Your task to perform on an android device: Do I have any events tomorrow? Image 0: 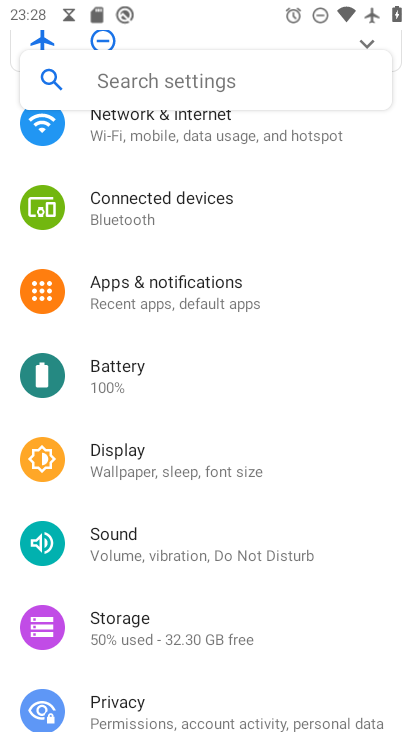
Step 0: press home button
Your task to perform on an android device: Do I have any events tomorrow? Image 1: 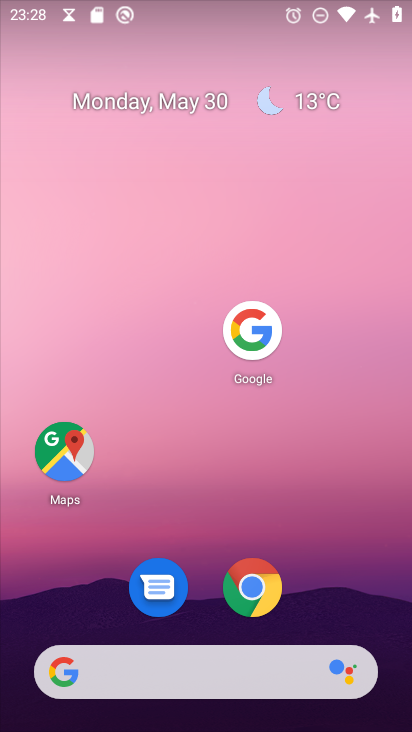
Step 1: drag from (128, 681) to (285, 244)
Your task to perform on an android device: Do I have any events tomorrow? Image 2: 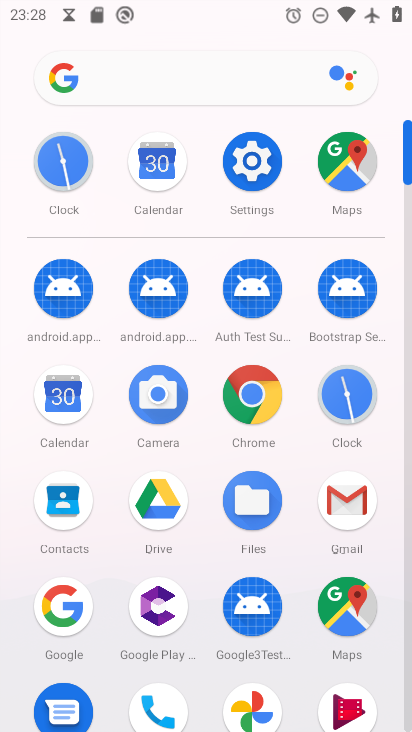
Step 2: click (162, 172)
Your task to perform on an android device: Do I have any events tomorrow? Image 3: 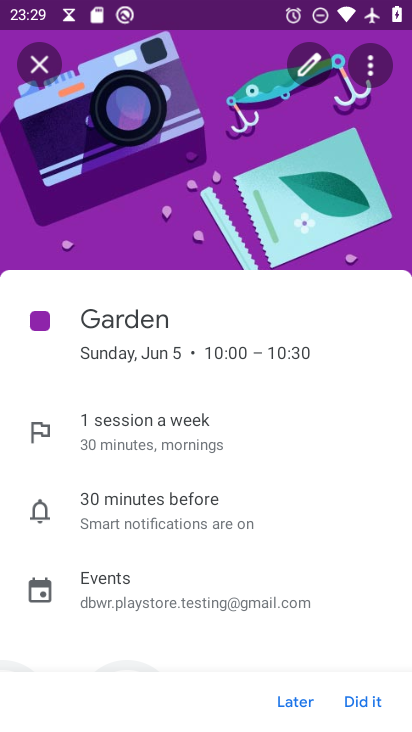
Step 3: click (40, 69)
Your task to perform on an android device: Do I have any events tomorrow? Image 4: 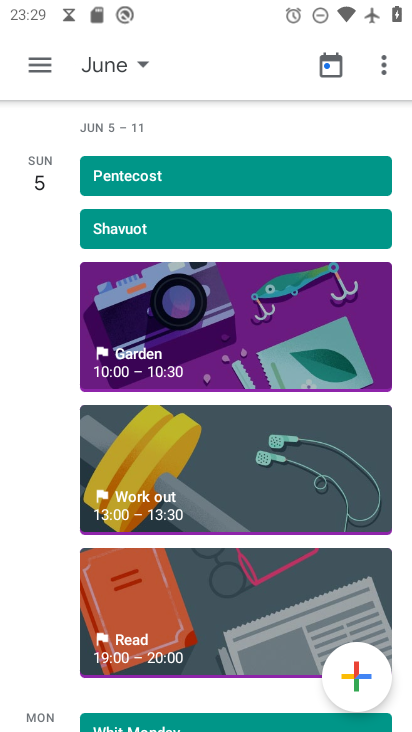
Step 4: click (106, 75)
Your task to perform on an android device: Do I have any events tomorrow? Image 5: 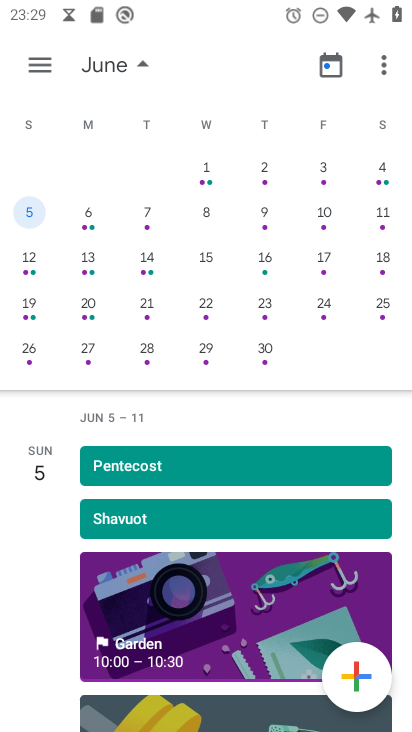
Step 5: drag from (54, 287) to (344, 249)
Your task to perform on an android device: Do I have any events tomorrow? Image 6: 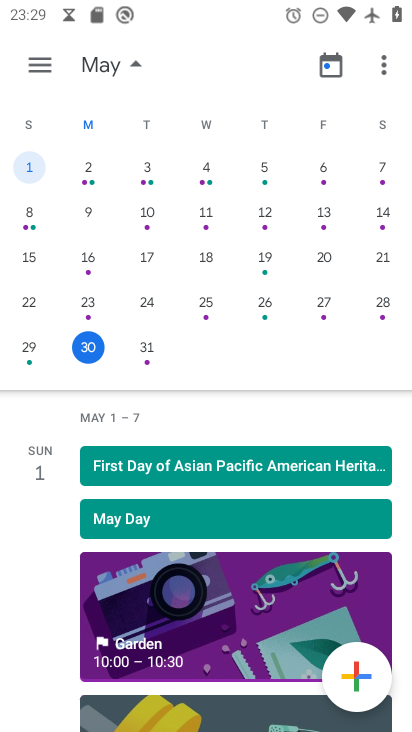
Step 6: click (139, 351)
Your task to perform on an android device: Do I have any events tomorrow? Image 7: 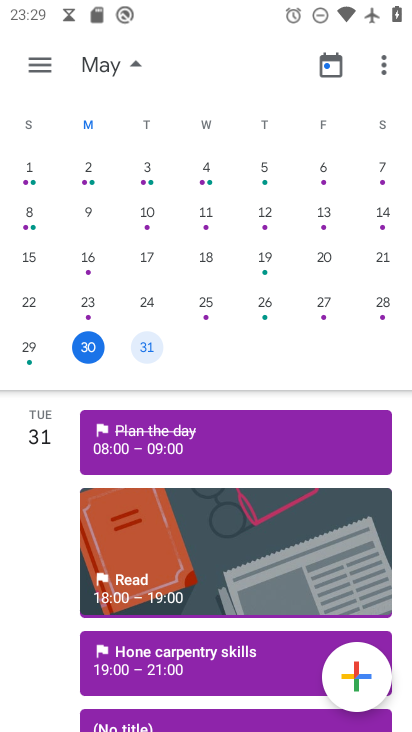
Step 7: click (38, 60)
Your task to perform on an android device: Do I have any events tomorrow? Image 8: 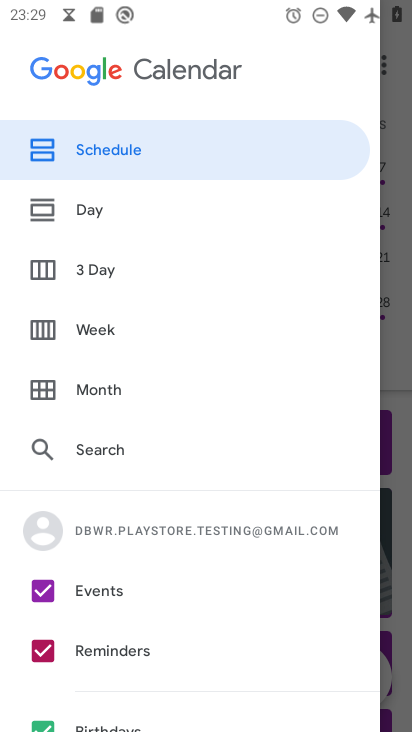
Step 8: click (117, 150)
Your task to perform on an android device: Do I have any events tomorrow? Image 9: 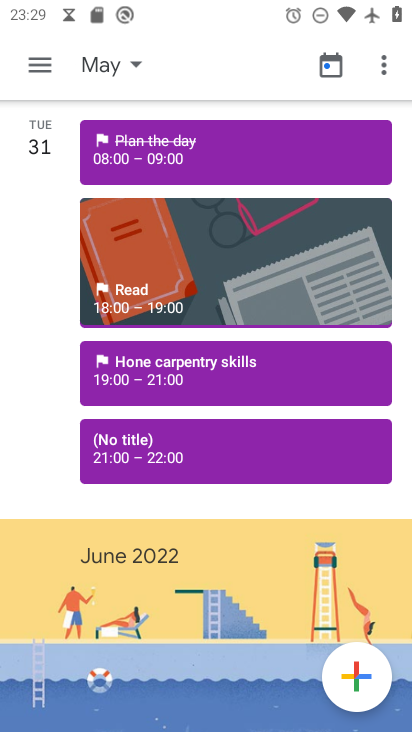
Step 9: click (192, 382)
Your task to perform on an android device: Do I have any events tomorrow? Image 10: 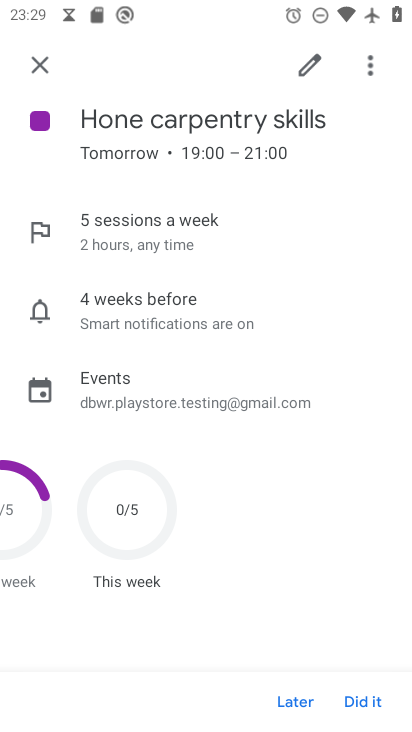
Step 10: task complete